Your task to perform on an android device: Show me the alarms in the clock app Image 0: 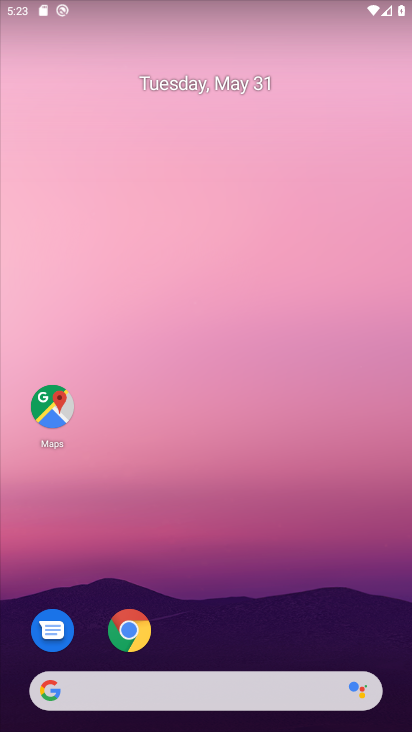
Step 0: drag from (252, 541) to (235, 116)
Your task to perform on an android device: Show me the alarms in the clock app Image 1: 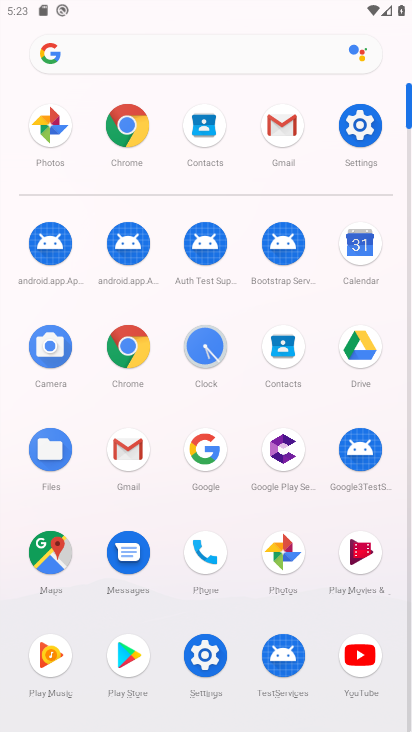
Step 1: click (215, 348)
Your task to perform on an android device: Show me the alarms in the clock app Image 2: 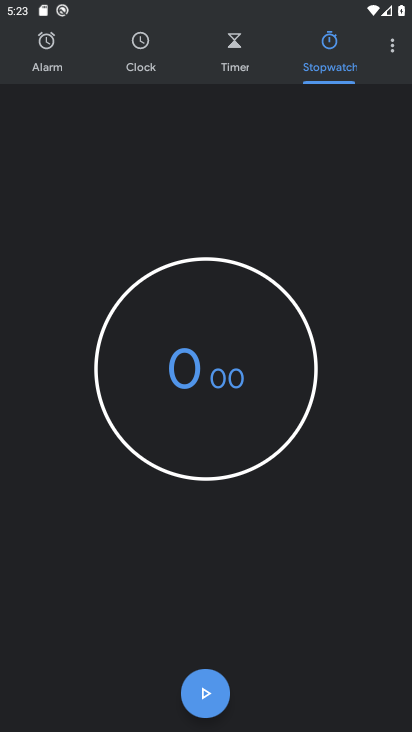
Step 2: click (70, 59)
Your task to perform on an android device: Show me the alarms in the clock app Image 3: 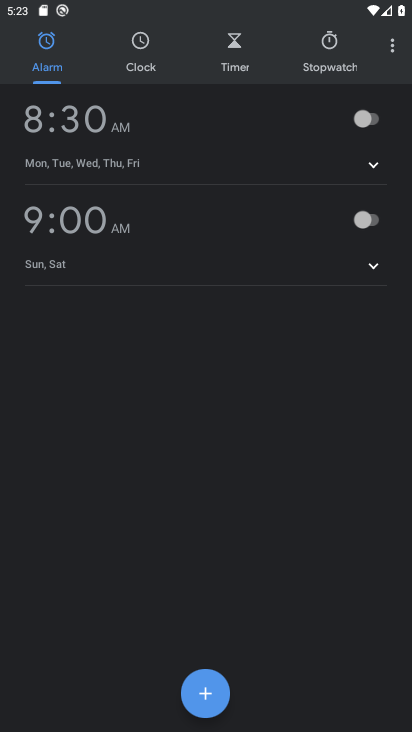
Step 3: task complete